Your task to perform on an android device: Do I have any events this weekend? Image 0: 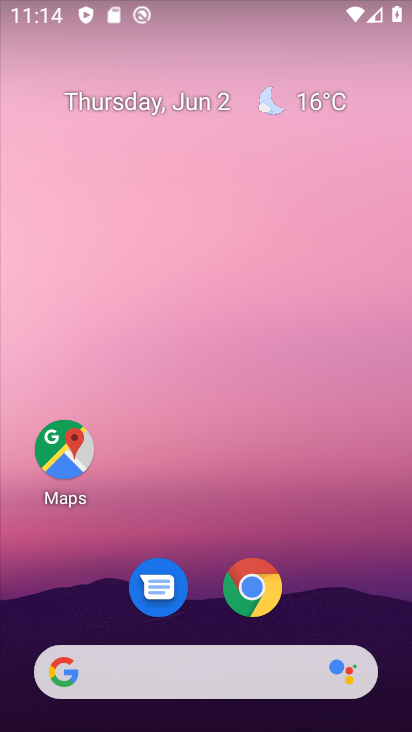
Step 0: drag from (212, 627) to (145, 68)
Your task to perform on an android device: Do I have any events this weekend? Image 1: 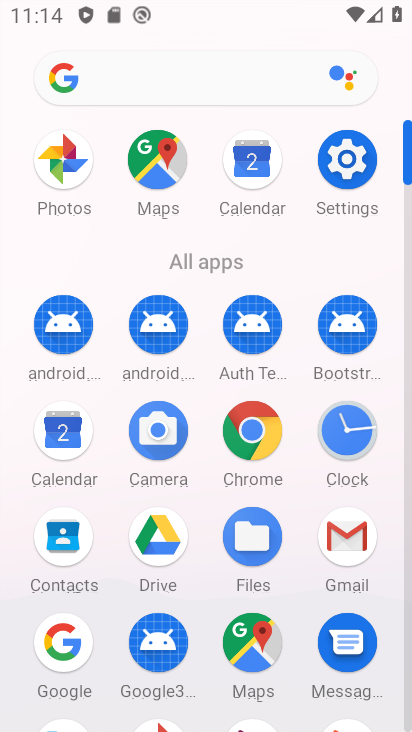
Step 1: click (73, 440)
Your task to perform on an android device: Do I have any events this weekend? Image 2: 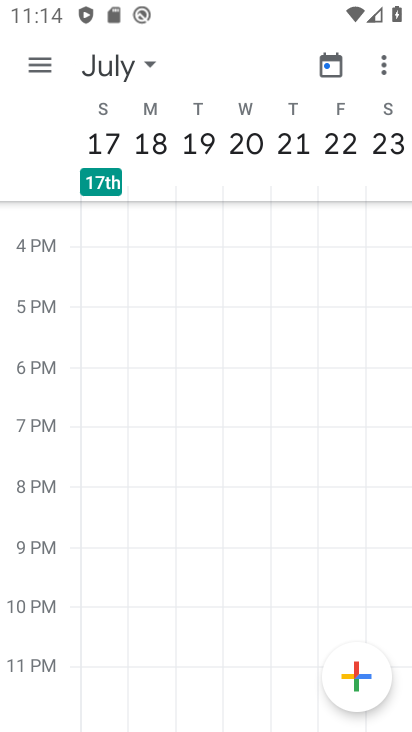
Step 2: click (332, 48)
Your task to perform on an android device: Do I have any events this weekend? Image 3: 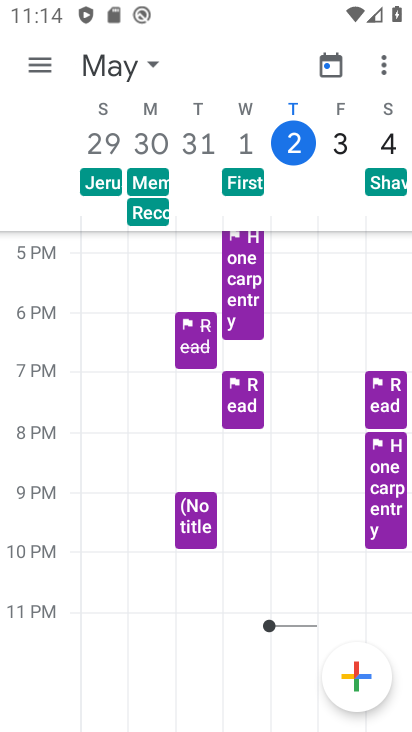
Step 3: task complete